Your task to perform on an android device: change notification settings in the gmail app Image 0: 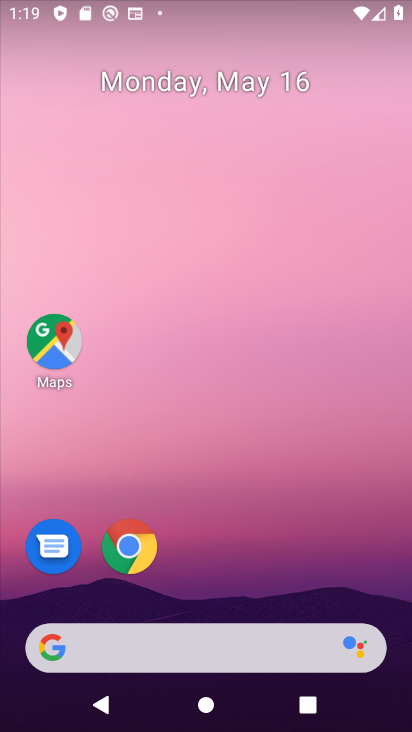
Step 0: drag from (190, 601) to (299, 164)
Your task to perform on an android device: change notification settings in the gmail app Image 1: 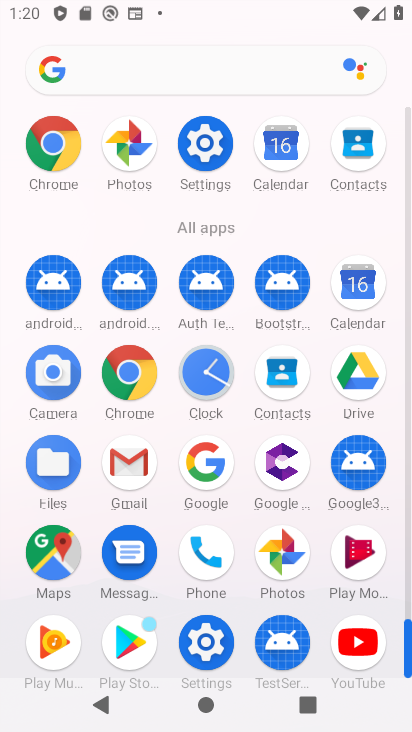
Step 1: click (121, 474)
Your task to perform on an android device: change notification settings in the gmail app Image 2: 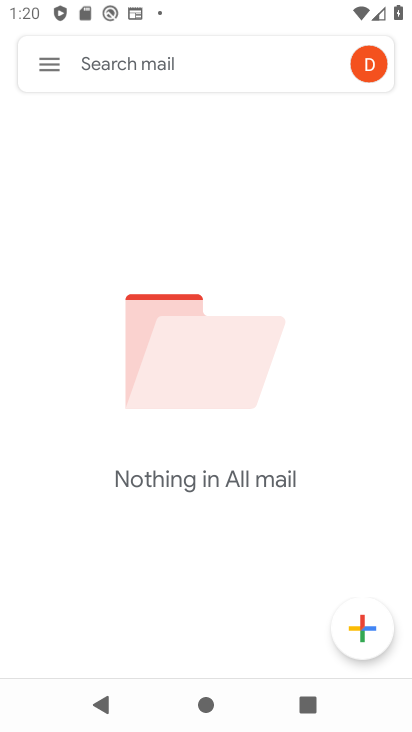
Step 2: click (34, 63)
Your task to perform on an android device: change notification settings in the gmail app Image 3: 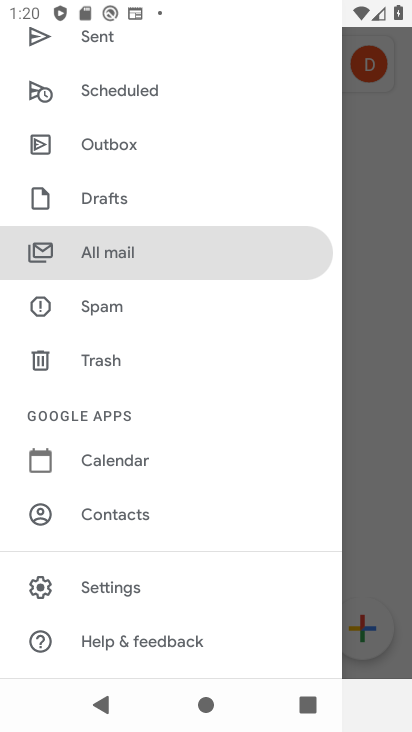
Step 3: click (127, 589)
Your task to perform on an android device: change notification settings in the gmail app Image 4: 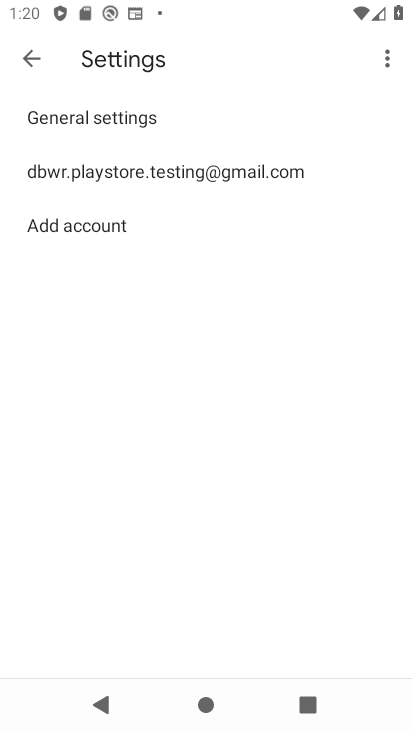
Step 4: click (190, 167)
Your task to perform on an android device: change notification settings in the gmail app Image 5: 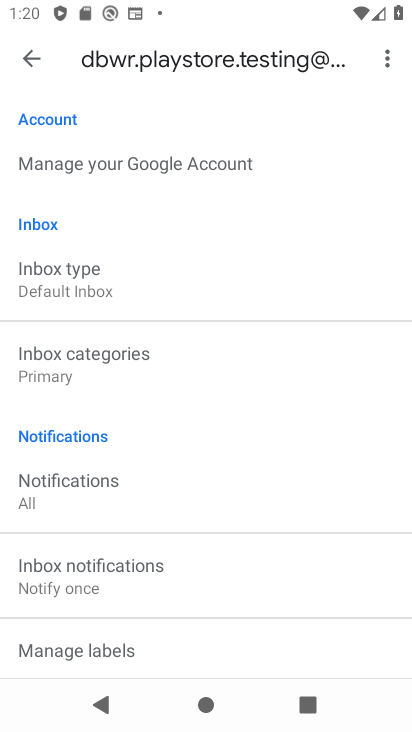
Step 5: click (75, 480)
Your task to perform on an android device: change notification settings in the gmail app Image 6: 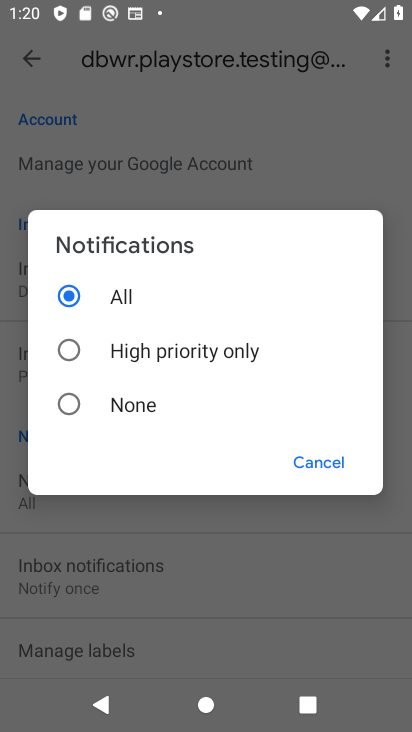
Step 6: click (122, 402)
Your task to perform on an android device: change notification settings in the gmail app Image 7: 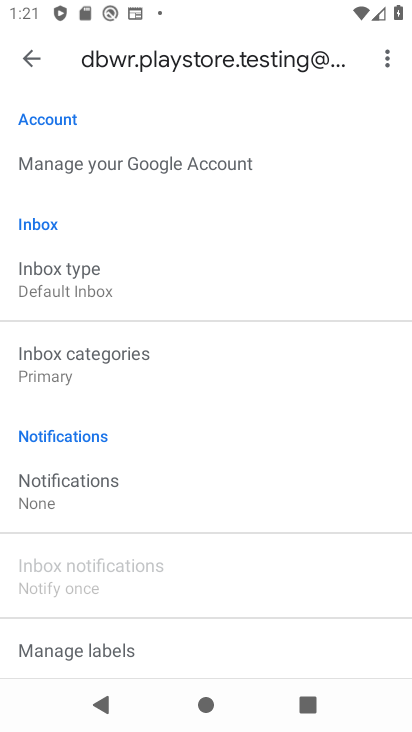
Step 7: task complete